Your task to perform on an android device: uninstall "Reddit" Image 0: 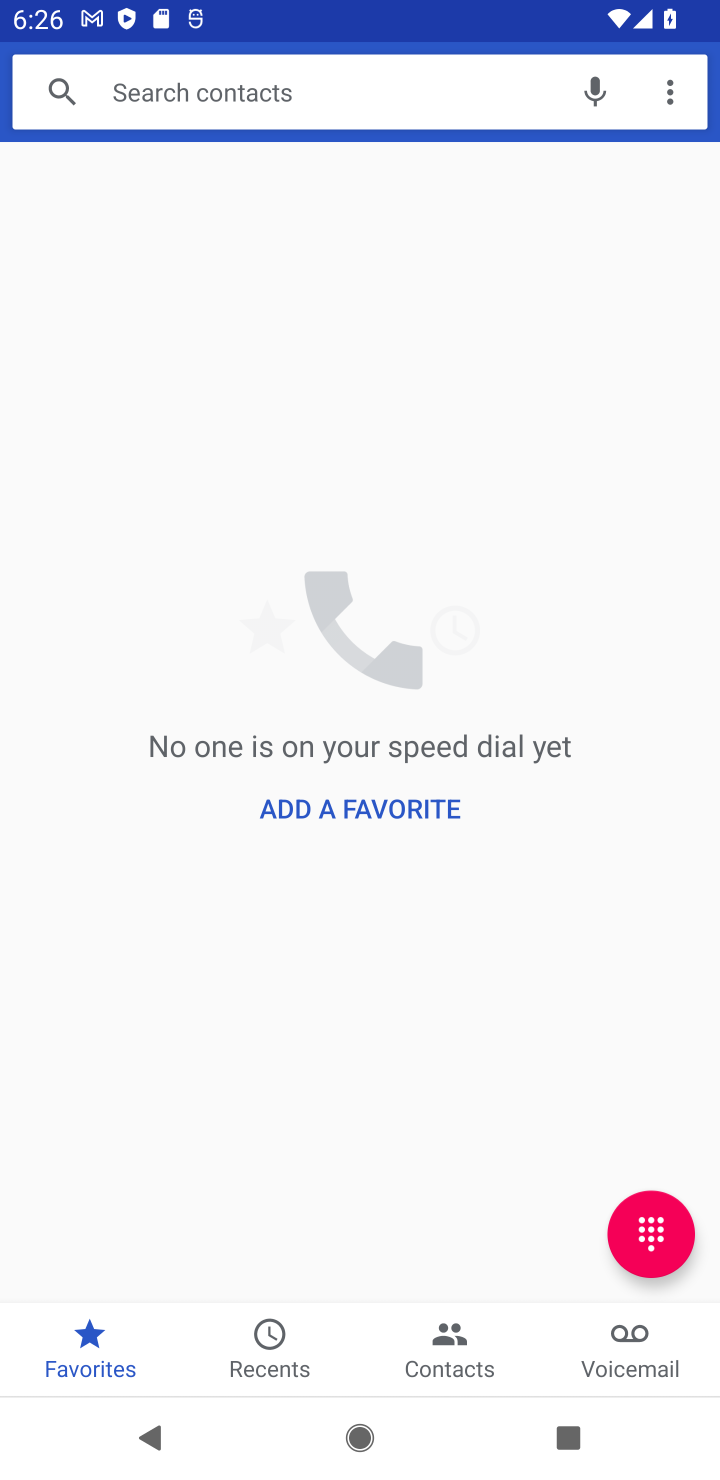
Step 0: press home button
Your task to perform on an android device: uninstall "Reddit" Image 1: 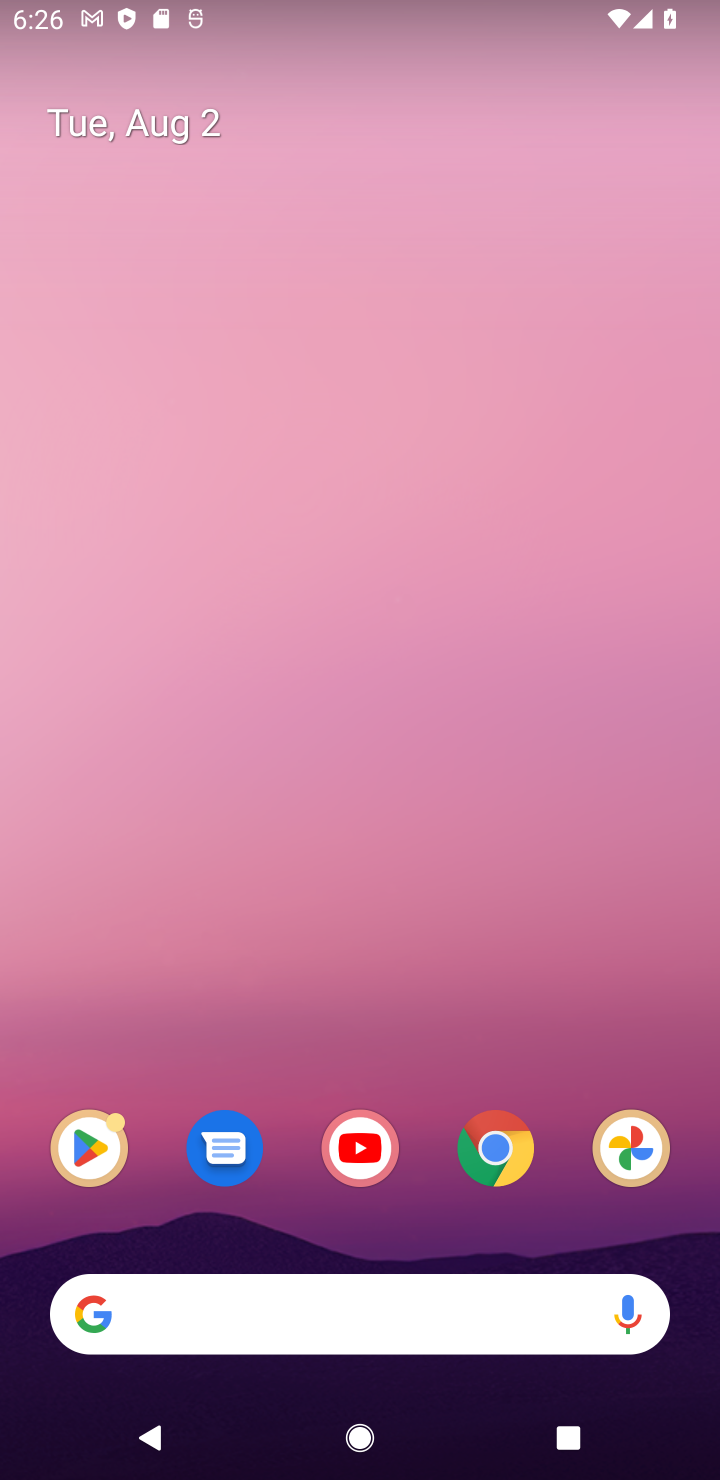
Step 1: drag from (566, 778) to (310, 6)
Your task to perform on an android device: uninstall "Reddit" Image 2: 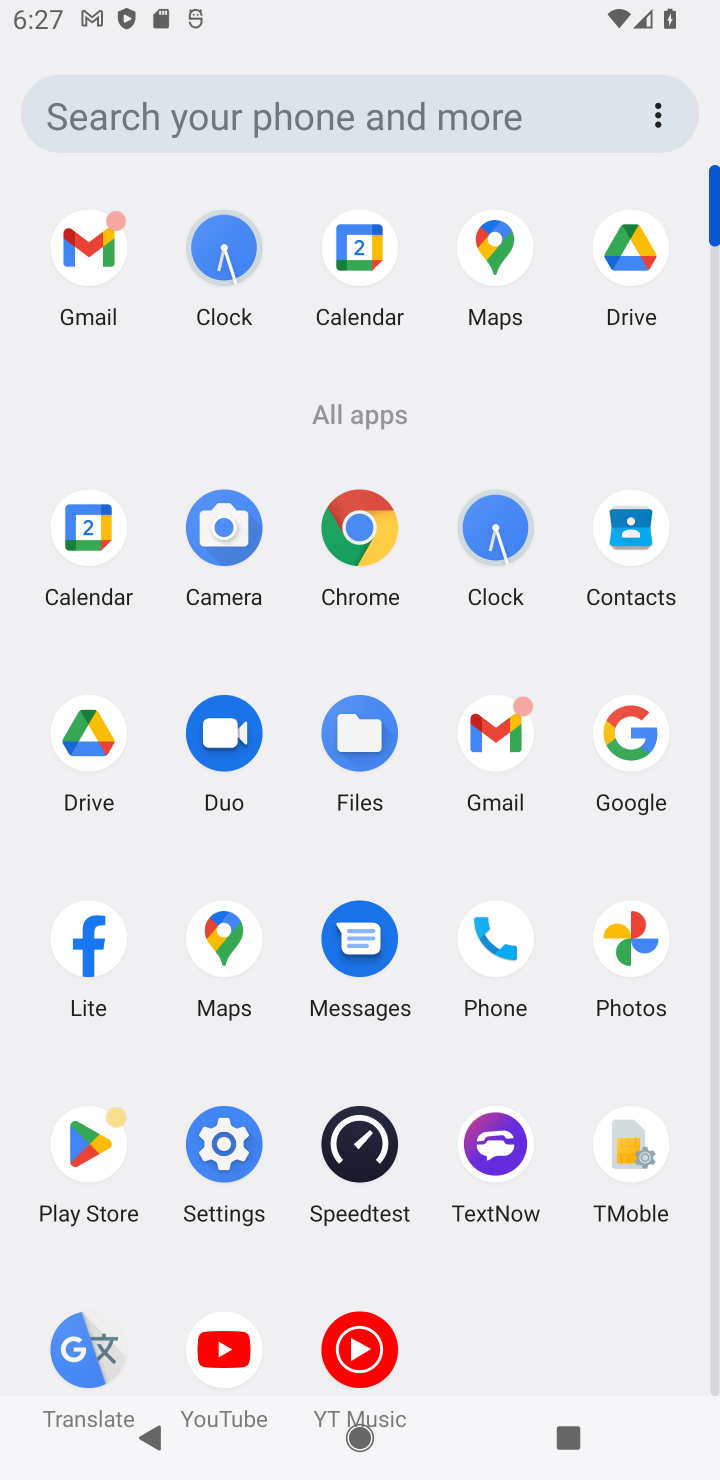
Step 2: click (100, 1127)
Your task to perform on an android device: uninstall "Reddit" Image 3: 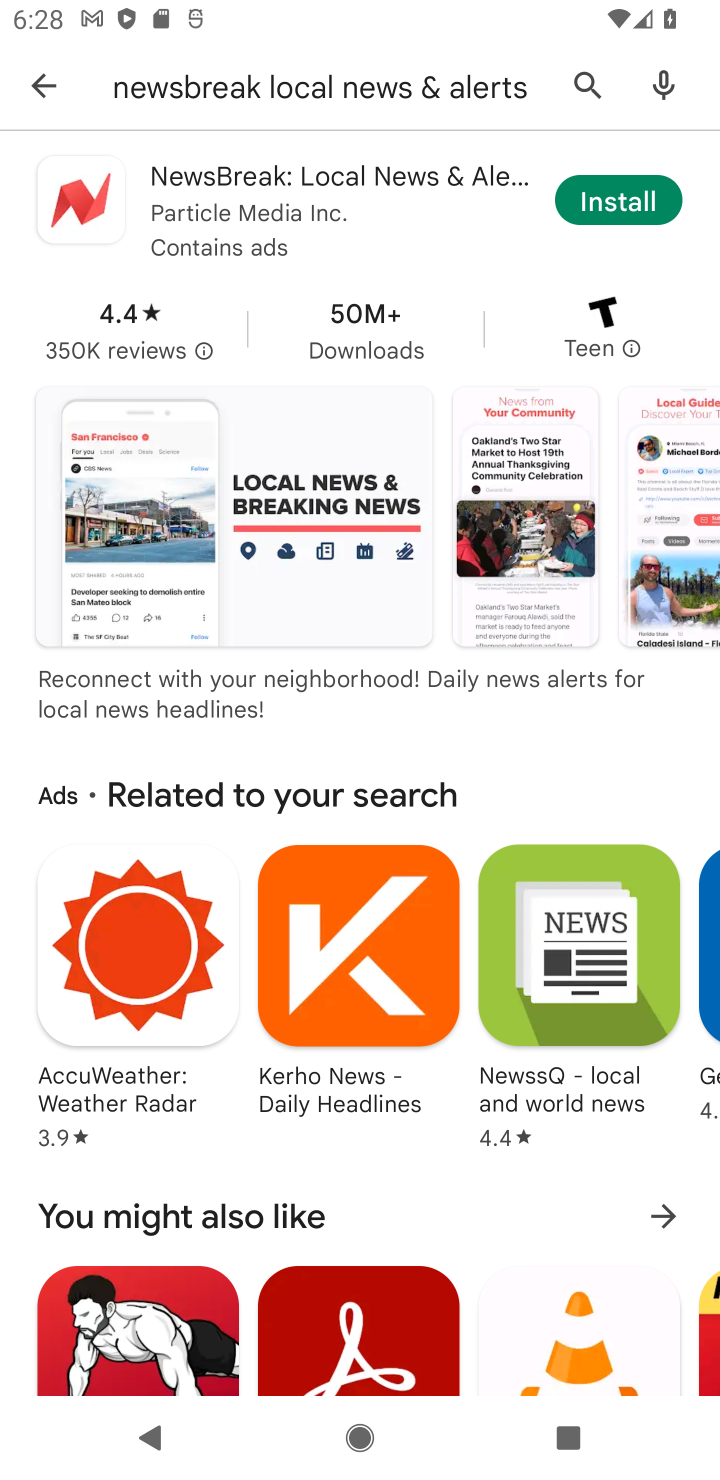
Step 3: press back button
Your task to perform on an android device: uninstall "Reddit" Image 4: 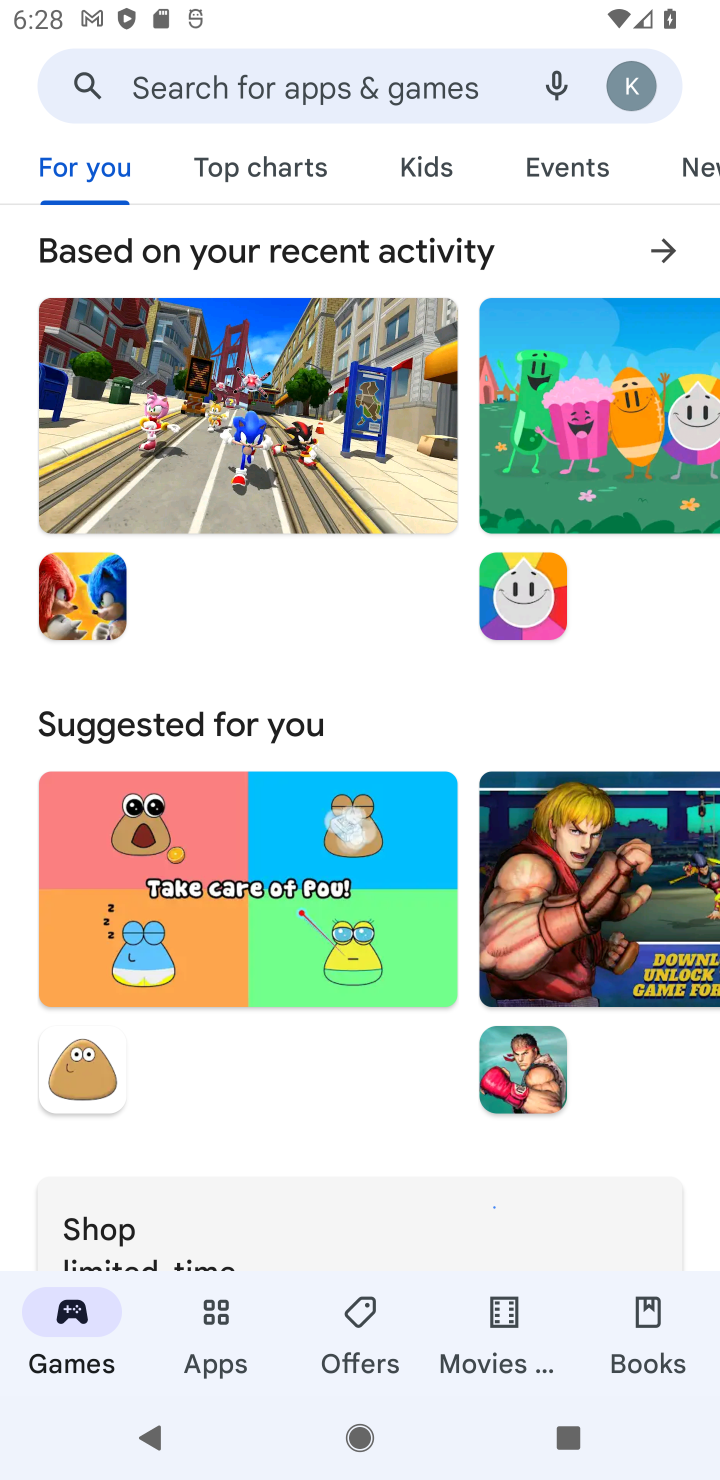
Step 4: click (301, 95)
Your task to perform on an android device: uninstall "Reddit" Image 5: 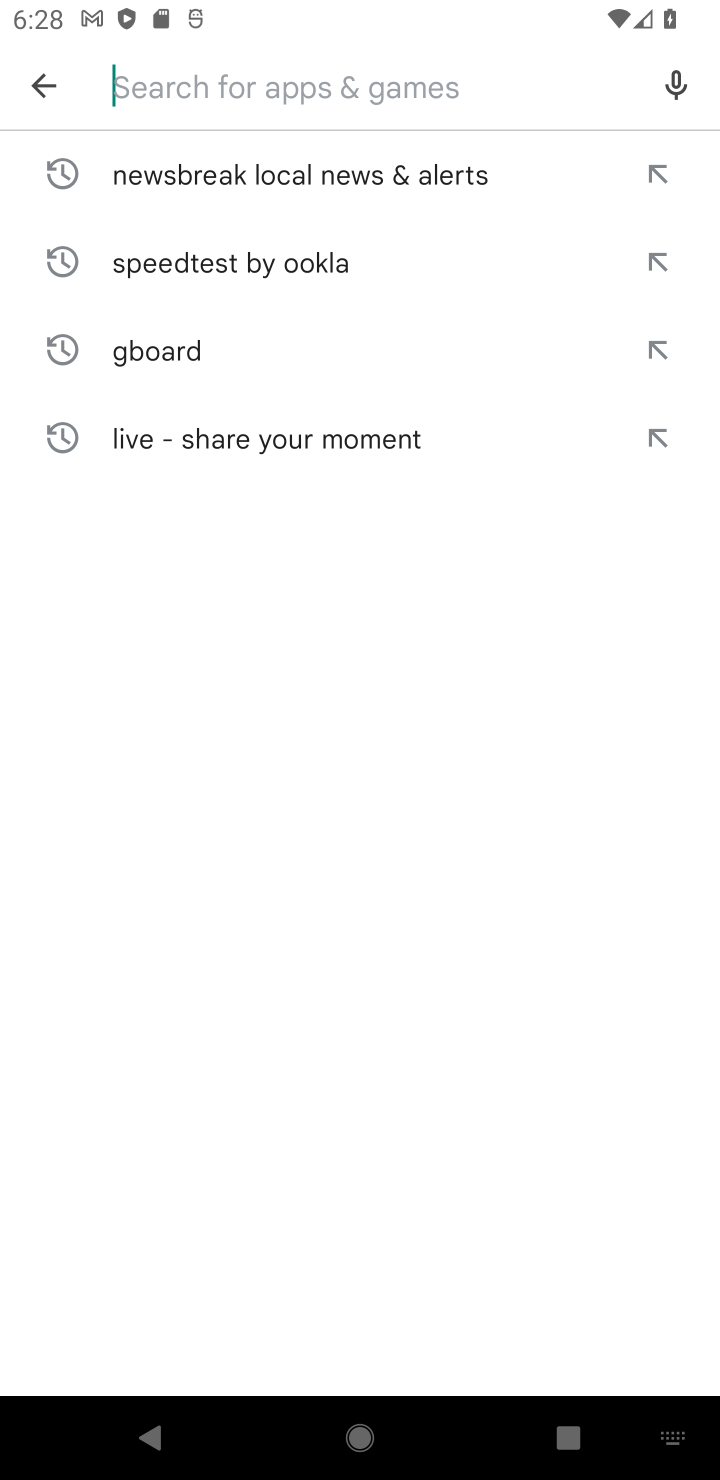
Step 5: type "Reddit"
Your task to perform on an android device: uninstall "Reddit" Image 6: 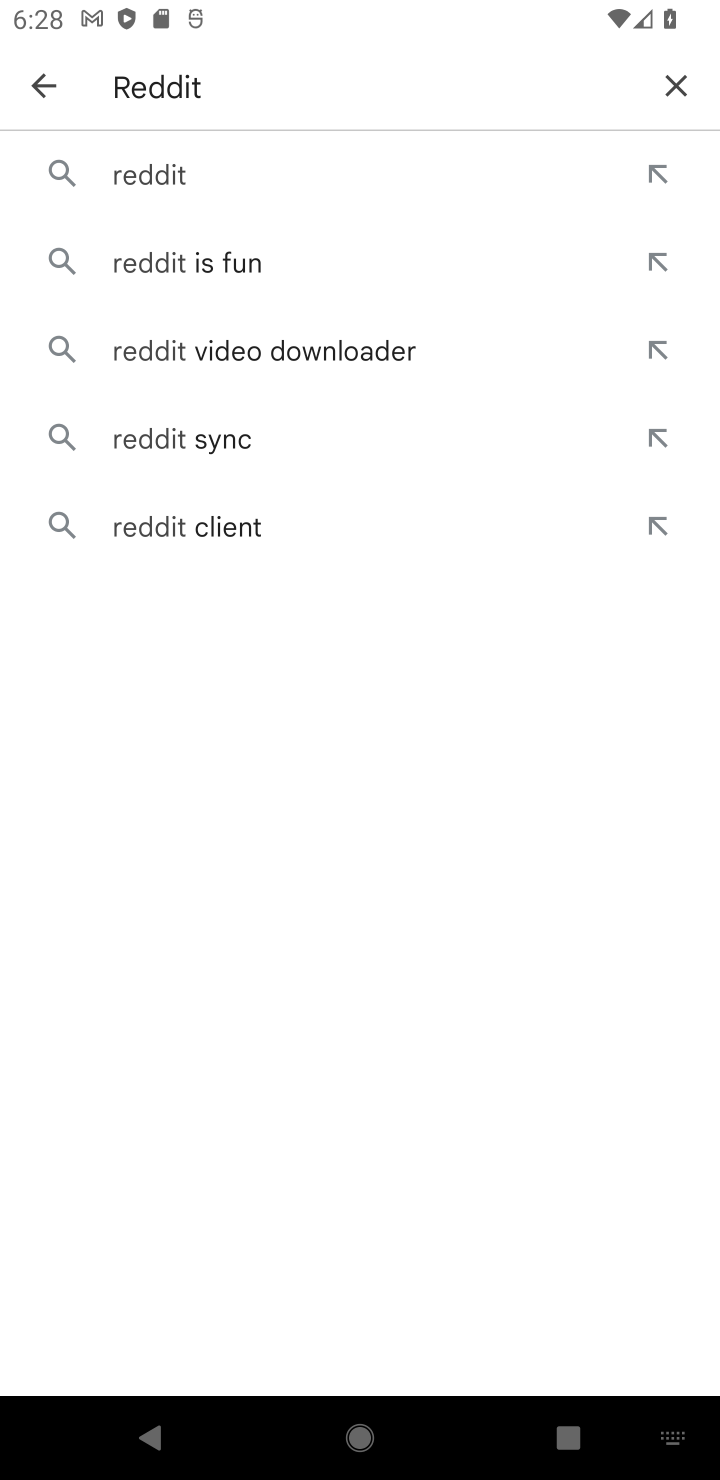
Step 6: click (139, 169)
Your task to perform on an android device: uninstall "Reddit" Image 7: 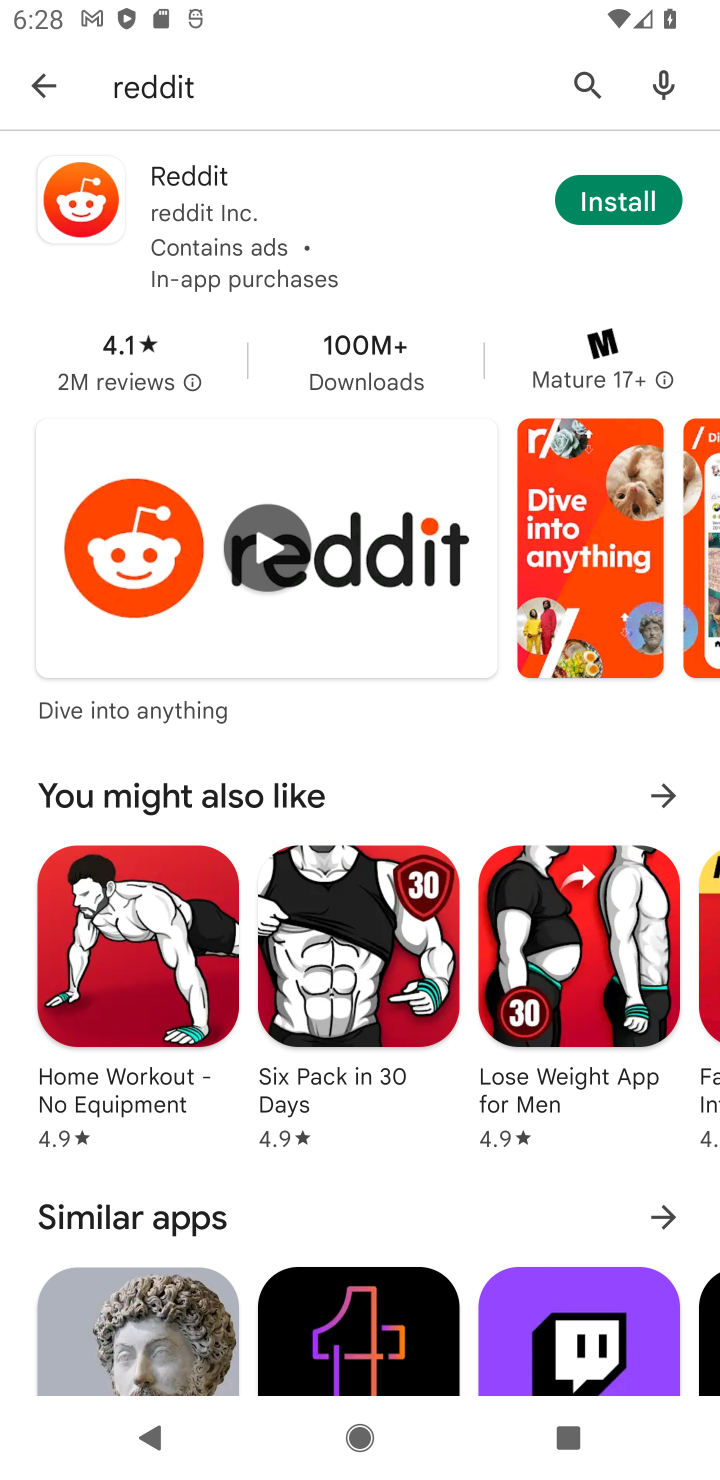
Step 7: task complete